Your task to perform on an android device: open app "Yahoo Mail" (install if not already installed) Image 0: 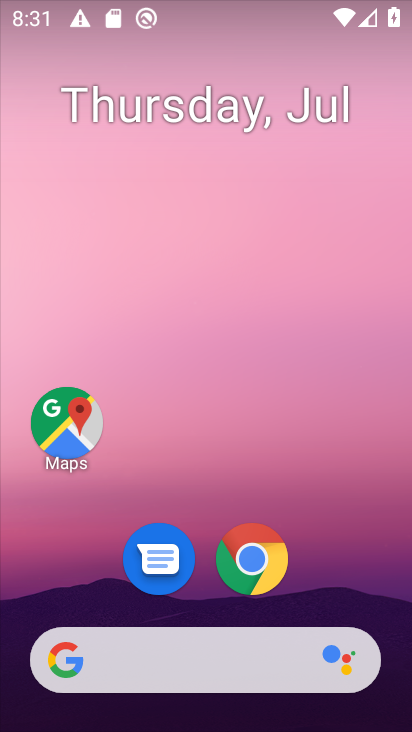
Step 0: drag from (188, 473) to (218, 37)
Your task to perform on an android device: open app "Yahoo Mail" (install if not already installed) Image 1: 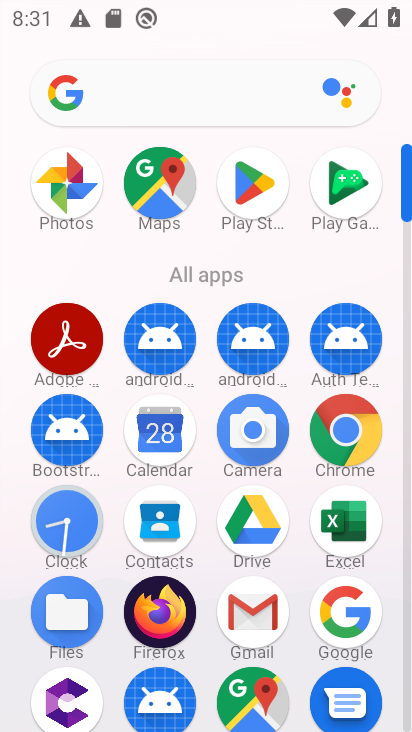
Step 1: click (240, 175)
Your task to perform on an android device: open app "Yahoo Mail" (install if not already installed) Image 2: 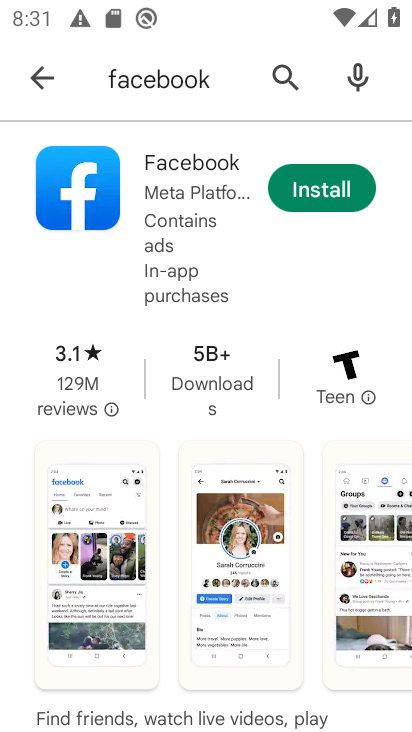
Step 2: click (276, 79)
Your task to perform on an android device: open app "Yahoo Mail" (install if not already installed) Image 3: 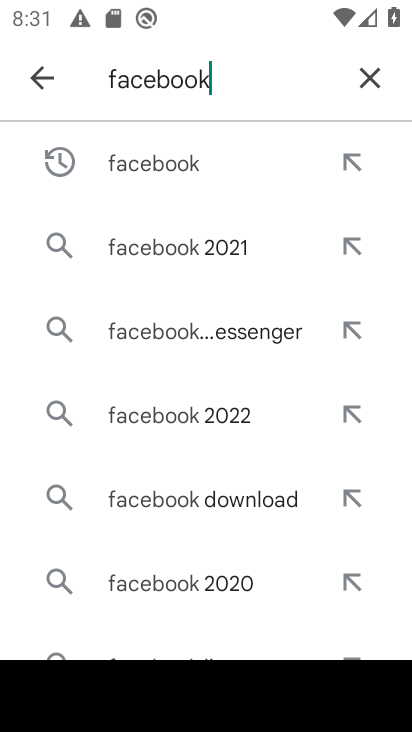
Step 3: click (369, 78)
Your task to perform on an android device: open app "Yahoo Mail" (install if not already installed) Image 4: 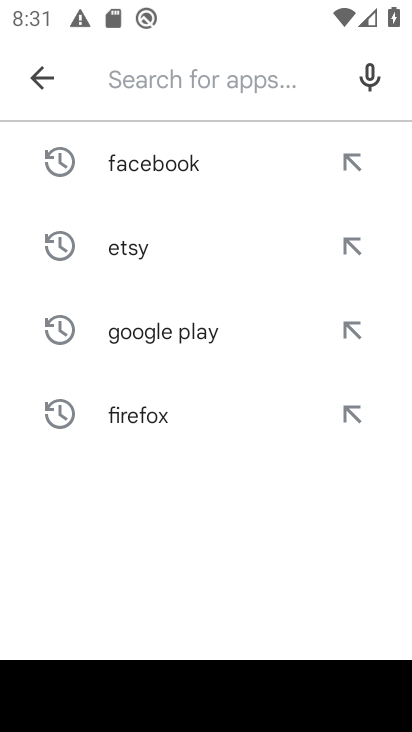
Step 4: type "yahoo mail"
Your task to perform on an android device: open app "Yahoo Mail" (install if not already installed) Image 5: 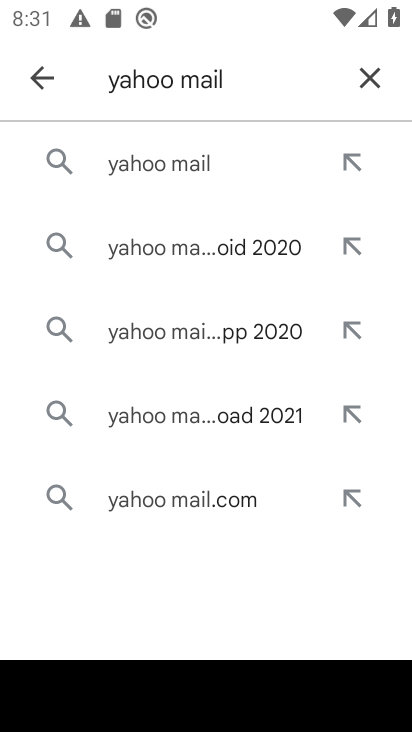
Step 5: click (182, 165)
Your task to perform on an android device: open app "Yahoo Mail" (install if not already installed) Image 6: 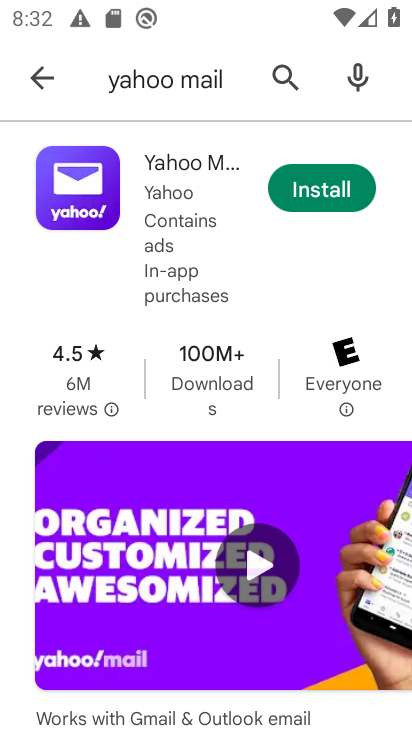
Step 6: click (341, 189)
Your task to perform on an android device: open app "Yahoo Mail" (install if not already installed) Image 7: 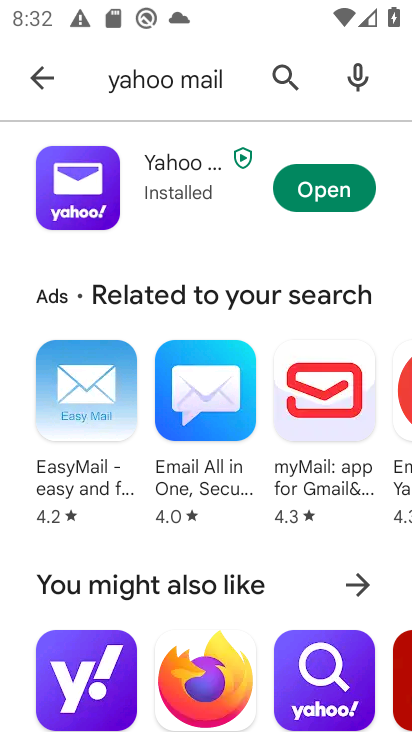
Step 7: click (309, 193)
Your task to perform on an android device: open app "Yahoo Mail" (install if not already installed) Image 8: 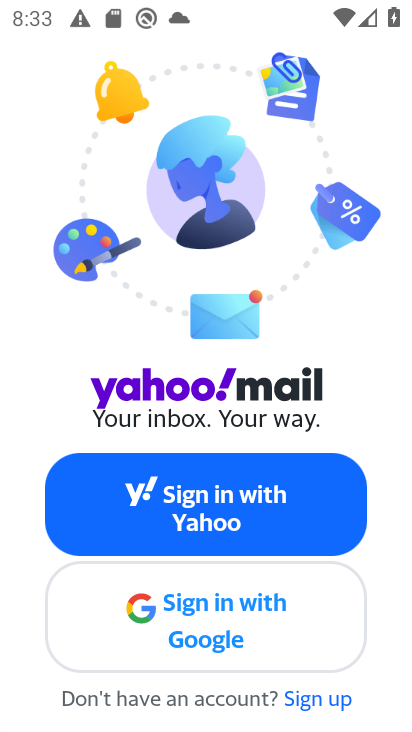
Step 8: task complete